Your task to perform on an android device: Open Chrome and go to the settings page Image 0: 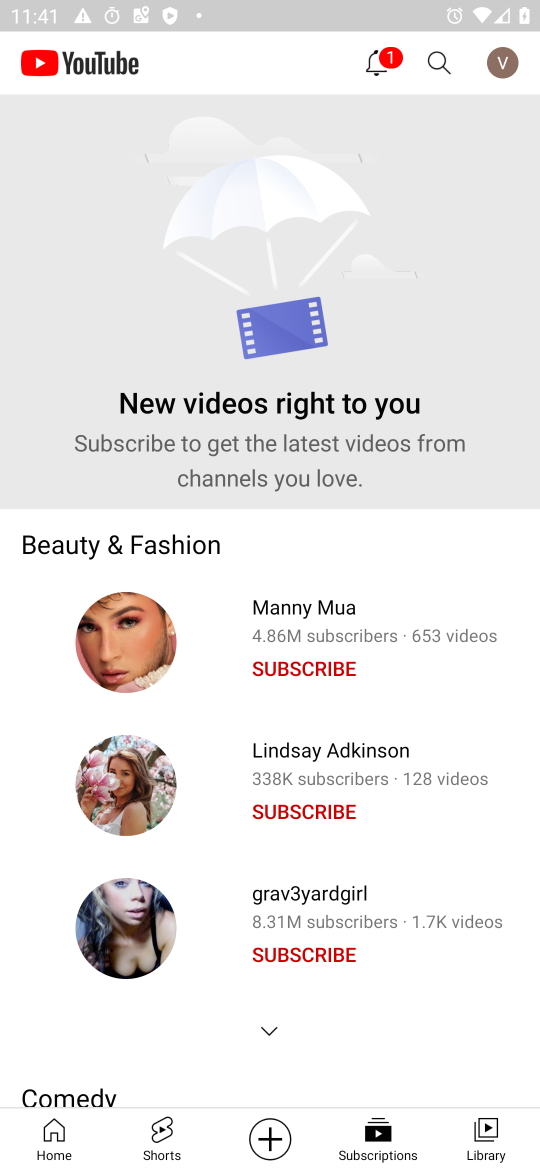
Step 0: press home button
Your task to perform on an android device: Open Chrome and go to the settings page Image 1: 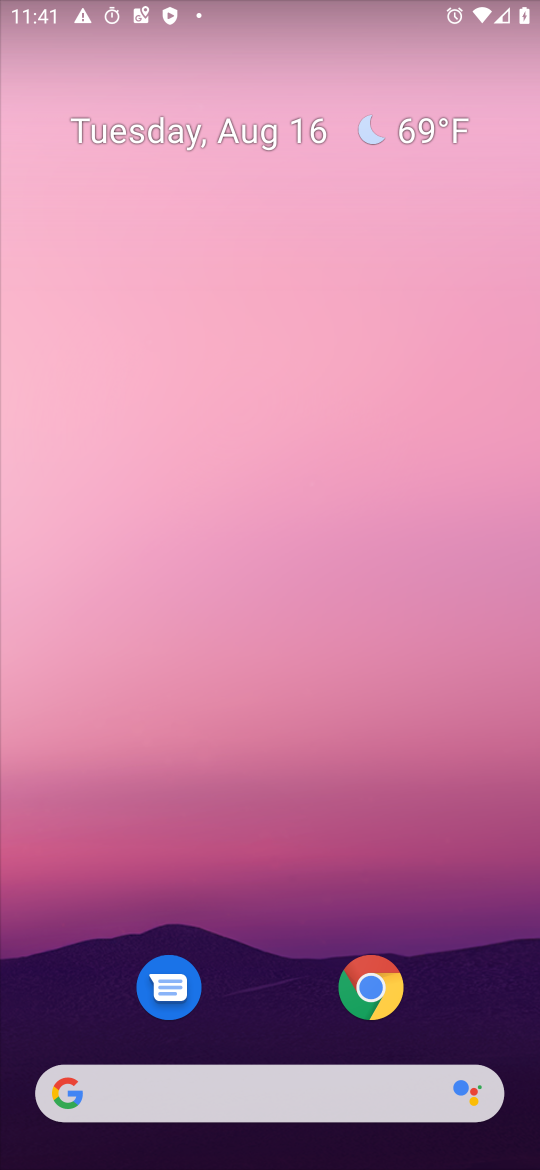
Step 1: click (372, 981)
Your task to perform on an android device: Open Chrome and go to the settings page Image 2: 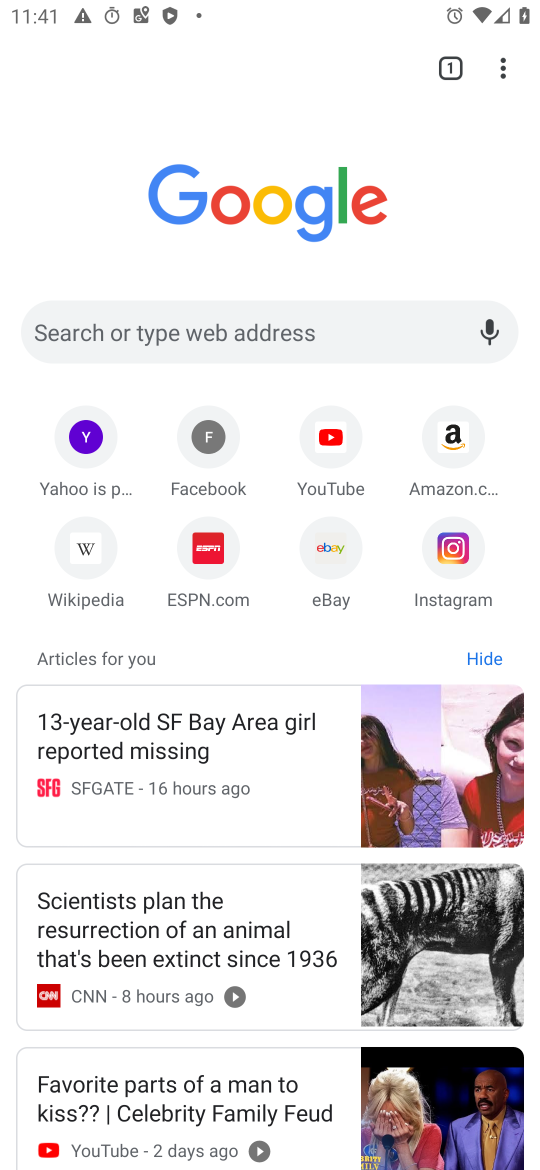
Step 2: click (506, 70)
Your task to perform on an android device: Open Chrome and go to the settings page Image 3: 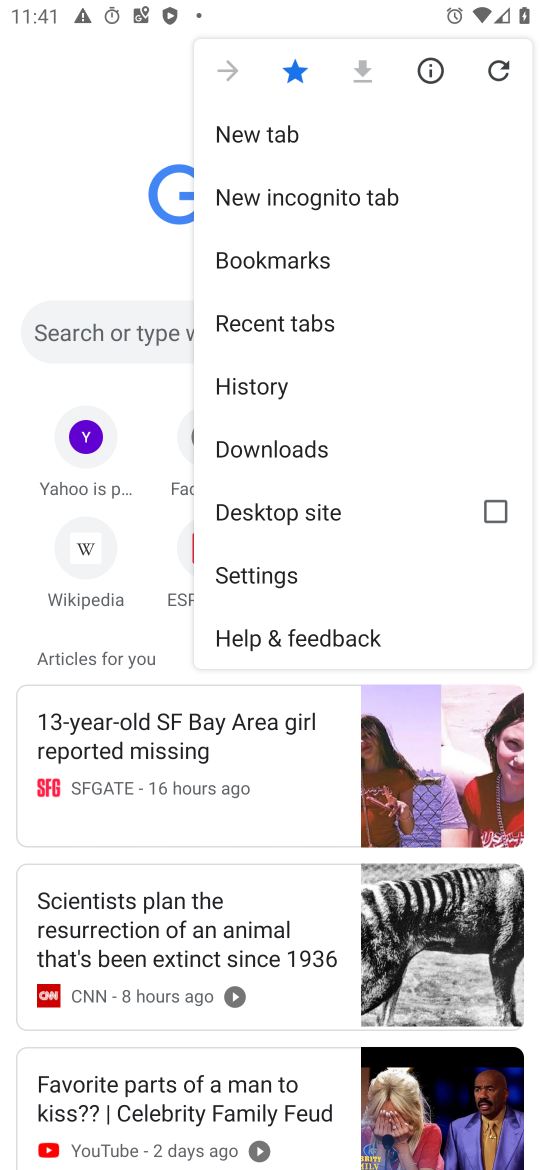
Step 3: click (271, 571)
Your task to perform on an android device: Open Chrome and go to the settings page Image 4: 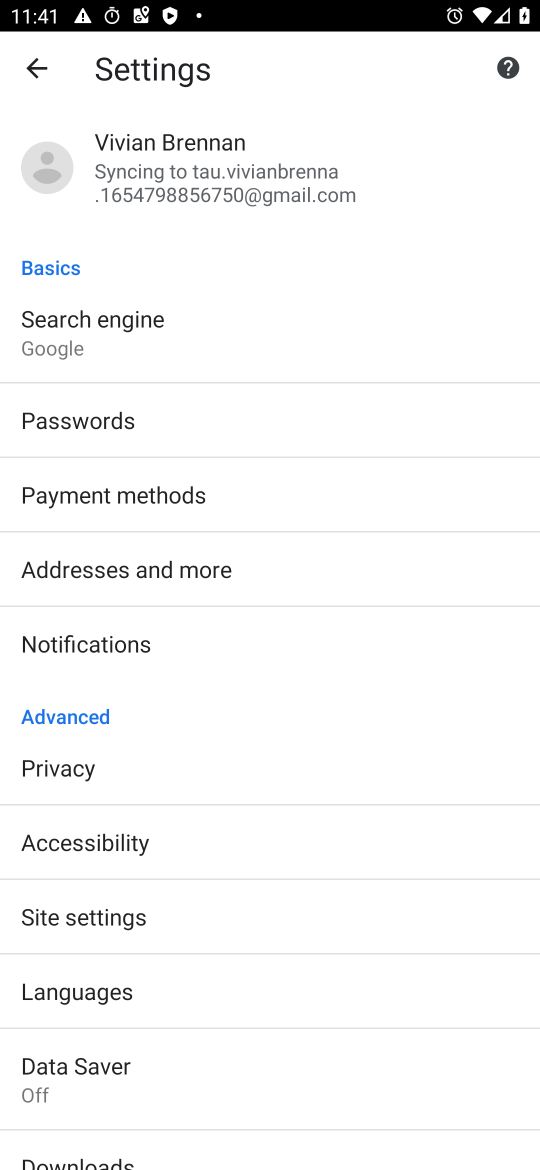
Step 4: task complete